Your task to perform on an android device: uninstall "Pluto TV - Live TV and Movies" Image 0: 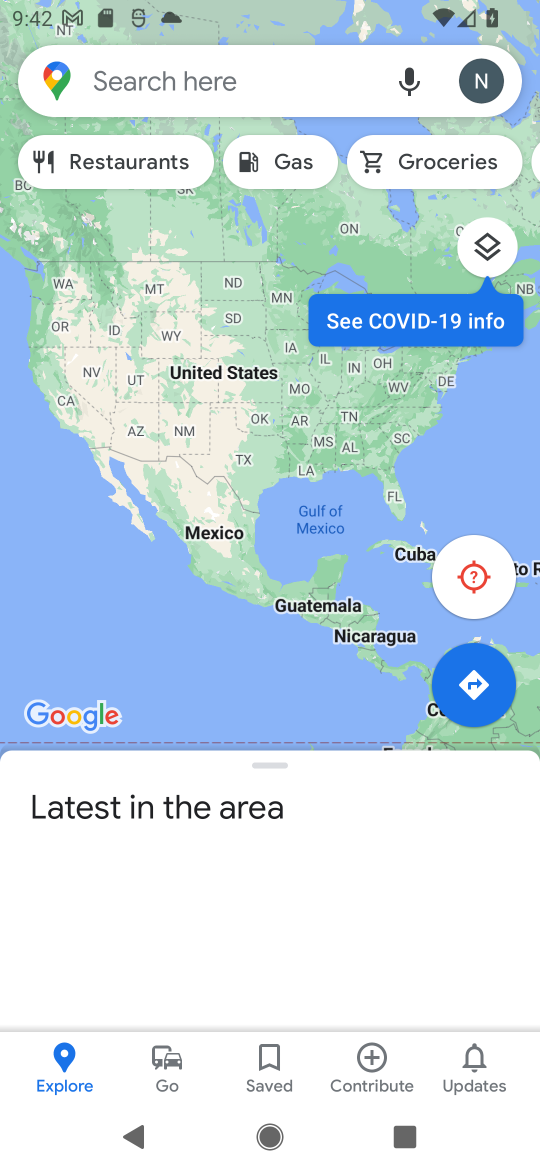
Step 0: press home button
Your task to perform on an android device: uninstall "Pluto TV - Live TV and Movies" Image 1: 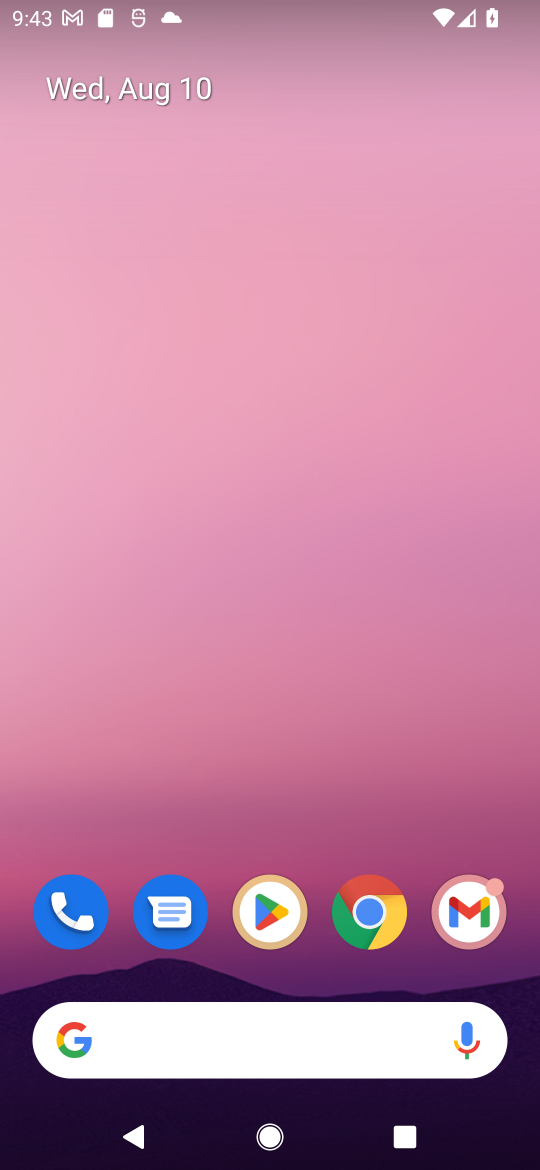
Step 1: drag from (507, 833) to (232, 39)
Your task to perform on an android device: uninstall "Pluto TV - Live TV and Movies" Image 2: 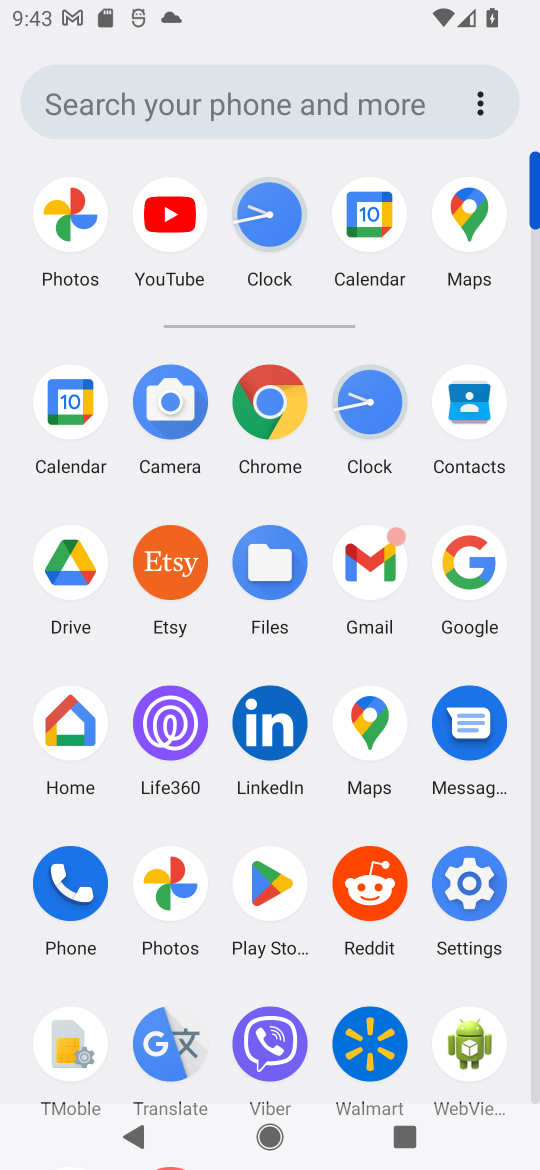
Step 2: click (256, 888)
Your task to perform on an android device: uninstall "Pluto TV - Live TV and Movies" Image 3: 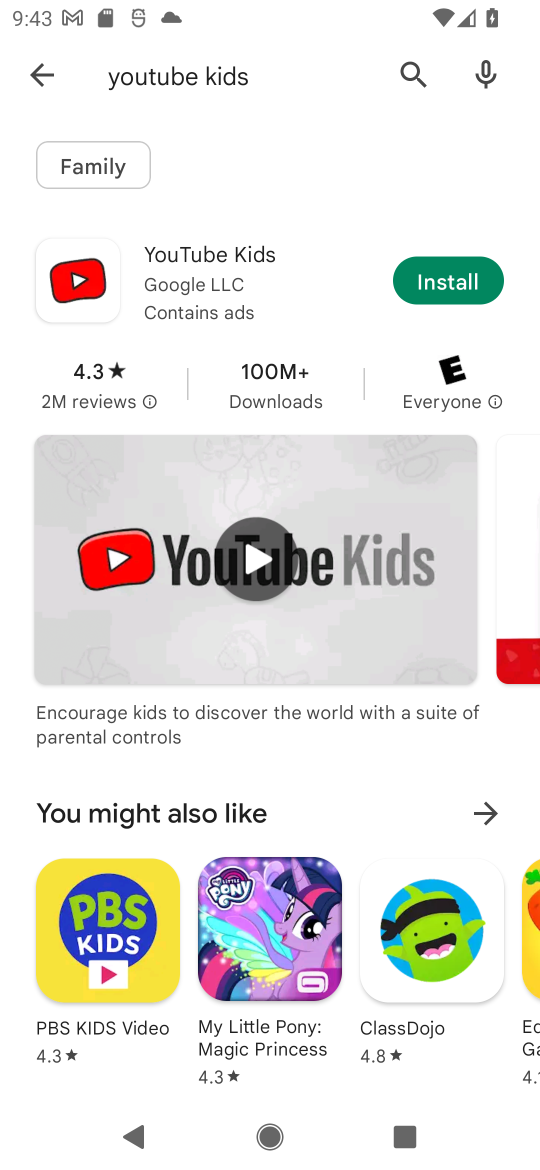
Step 3: press back button
Your task to perform on an android device: uninstall "Pluto TV - Live TV and Movies" Image 4: 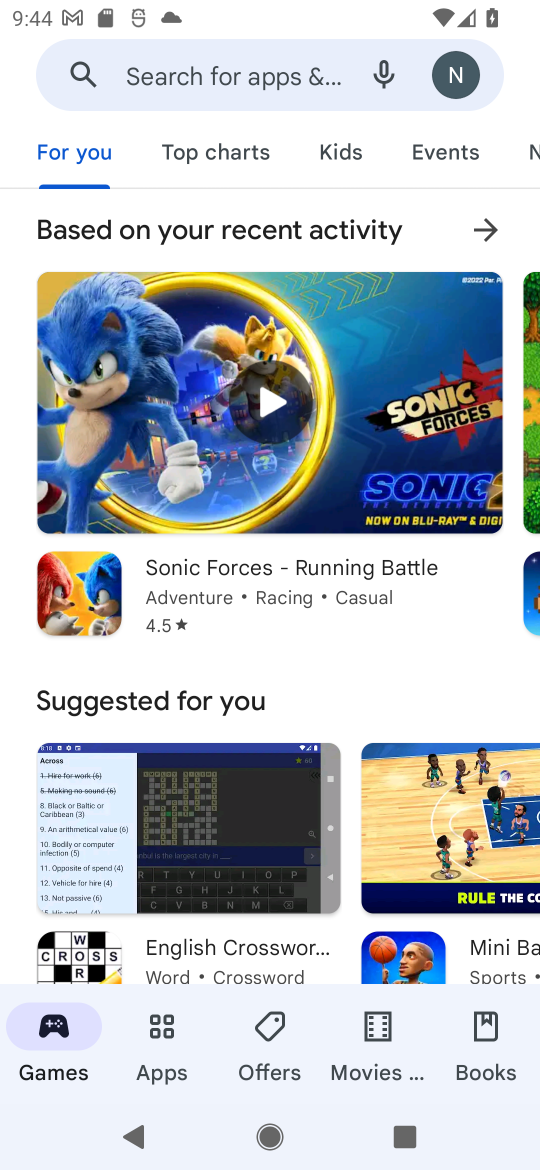
Step 4: click (240, 69)
Your task to perform on an android device: uninstall "Pluto TV - Live TV and Movies" Image 5: 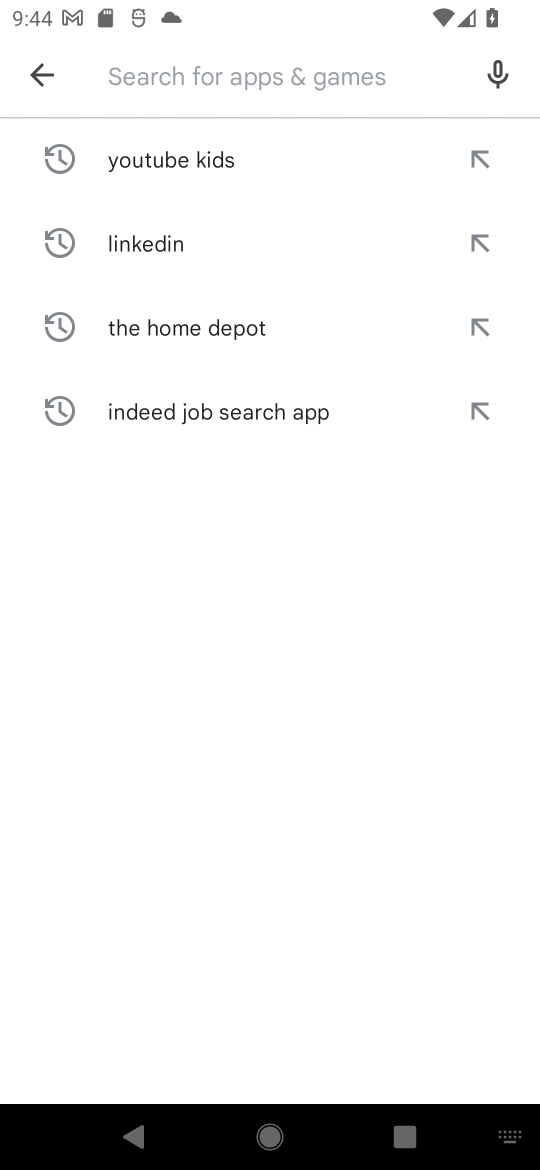
Step 5: type "Pluto TV - Live TV and Movies"
Your task to perform on an android device: uninstall "Pluto TV - Live TV and Movies" Image 6: 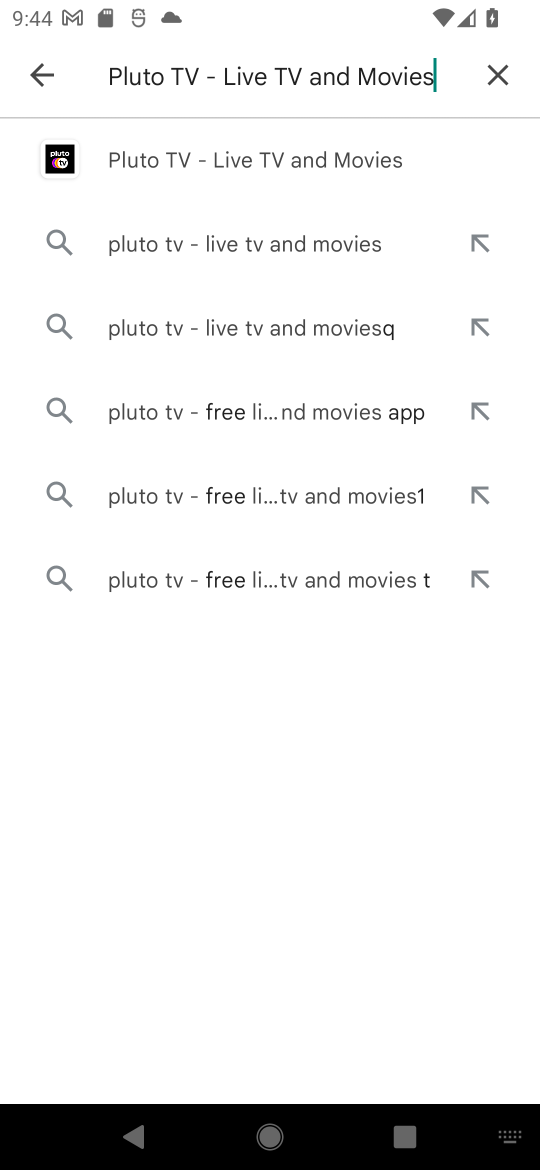
Step 6: click (226, 174)
Your task to perform on an android device: uninstall "Pluto TV - Live TV and Movies" Image 7: 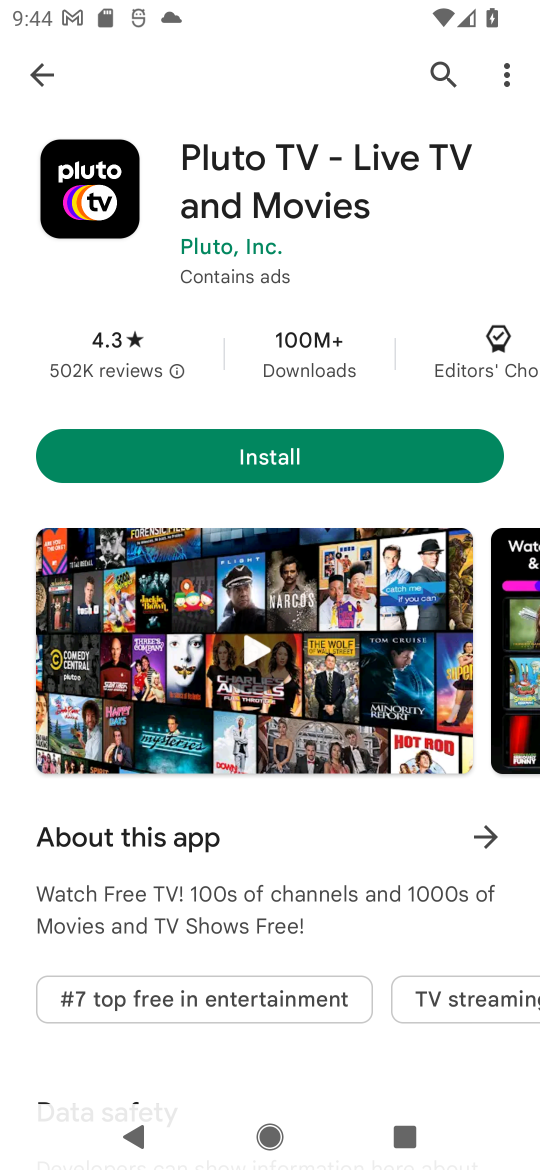
Step 7: task complete